Your task to perform on an android device: Open location settings Image 0: 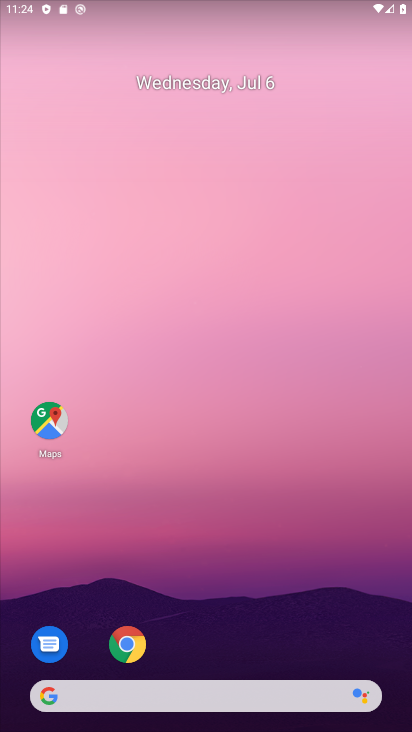
Step 0: drag from (205, 685) to (105, 2)
Your task to perform on an android device: Open location settings Image 1: 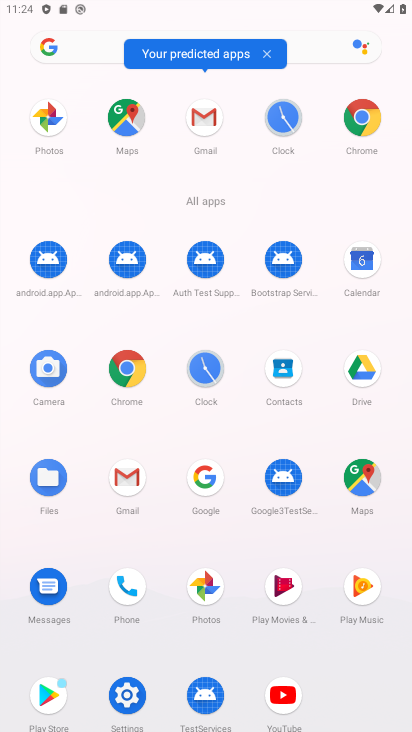
Step 1: click (131, 690)
Your task to perform on an android device: Open location settings Image 2: 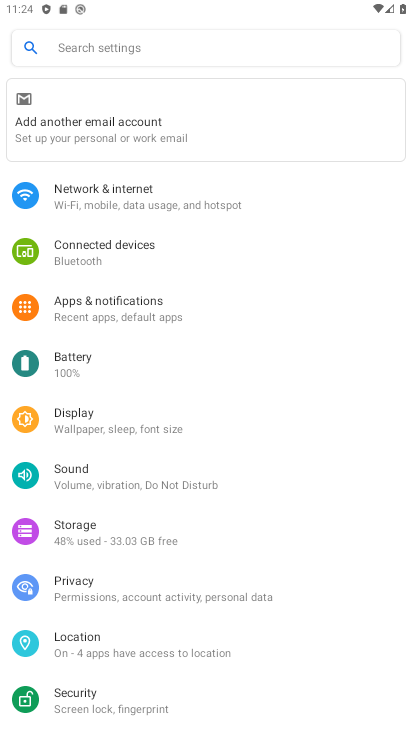
Step 2: click (96, 636)
Your task to perform on an android device: Open location settings Image 3: 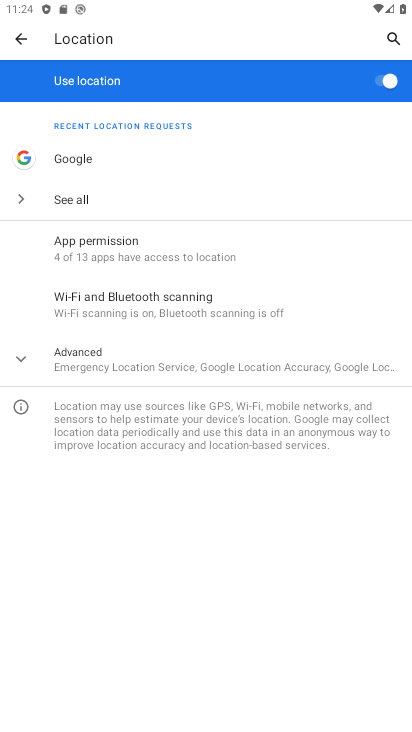
Step 3: task complete